Your task to perform on an android device: empty trash in the gmail app Image 0: 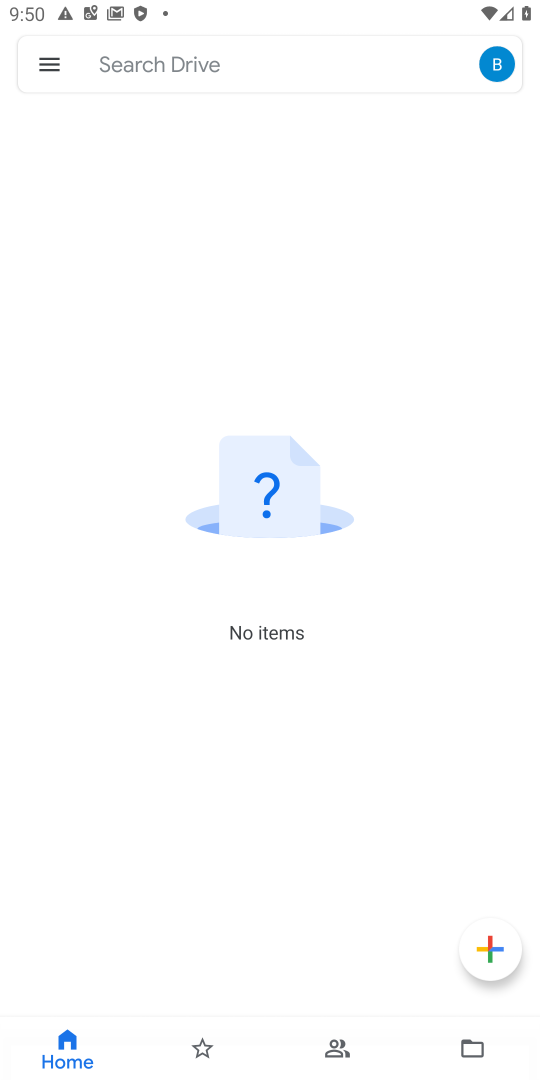
Step 0: press home button
Your task to perform on an android device: empty trash in the gmail app Image 1: 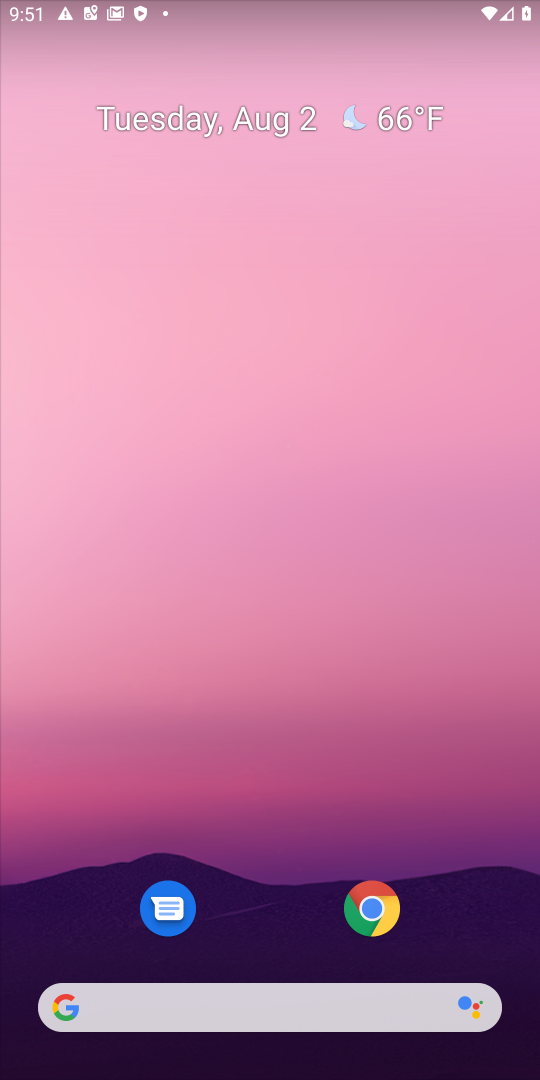
Step 1: drag from (107, 723) to (271, 338)
Your task to perform on an android device: empty trash in the gmail app Image 2: 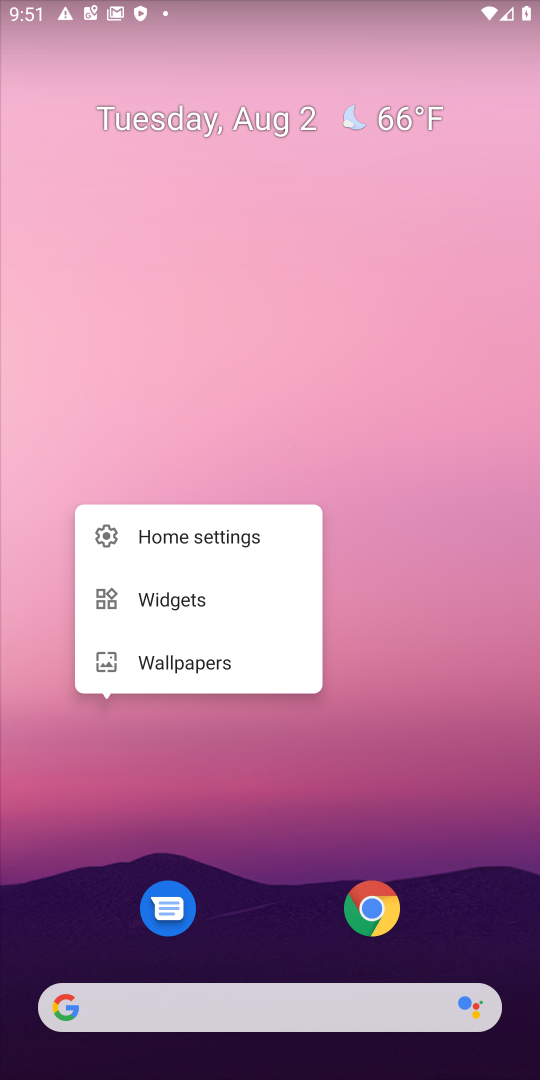
Step 2: click (247, 760)
Your task to perform on an android device: empty trash in the gmail app Image 3: 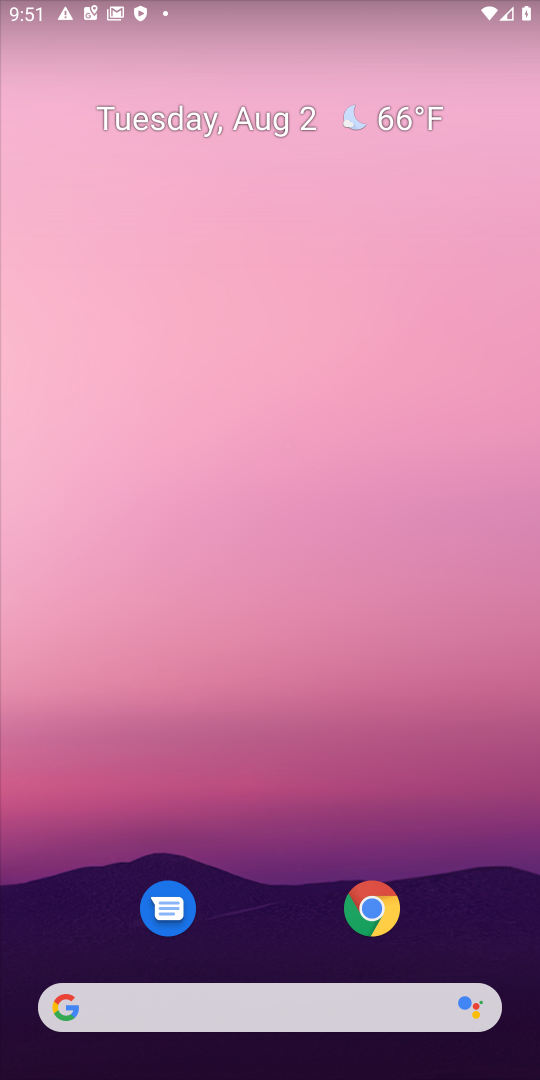
Step 3: drag from (39, 878) to (364, 131)
Your task to perform on an android device: empty trash in the gmail app Image 4: 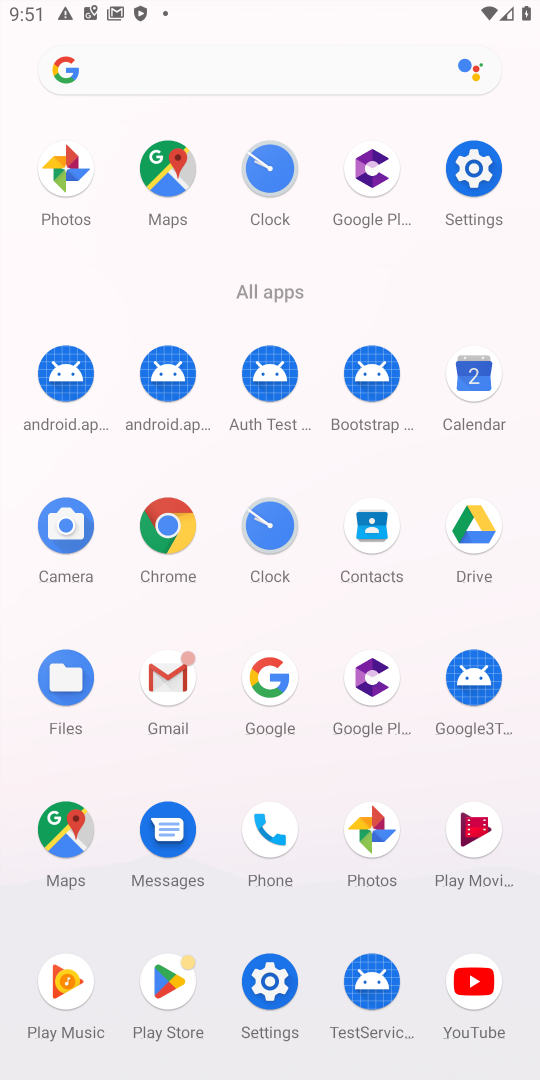
Step 4: click (176, 665)
Your task to perform on an android device: empty trash in the gmail app Image 5: 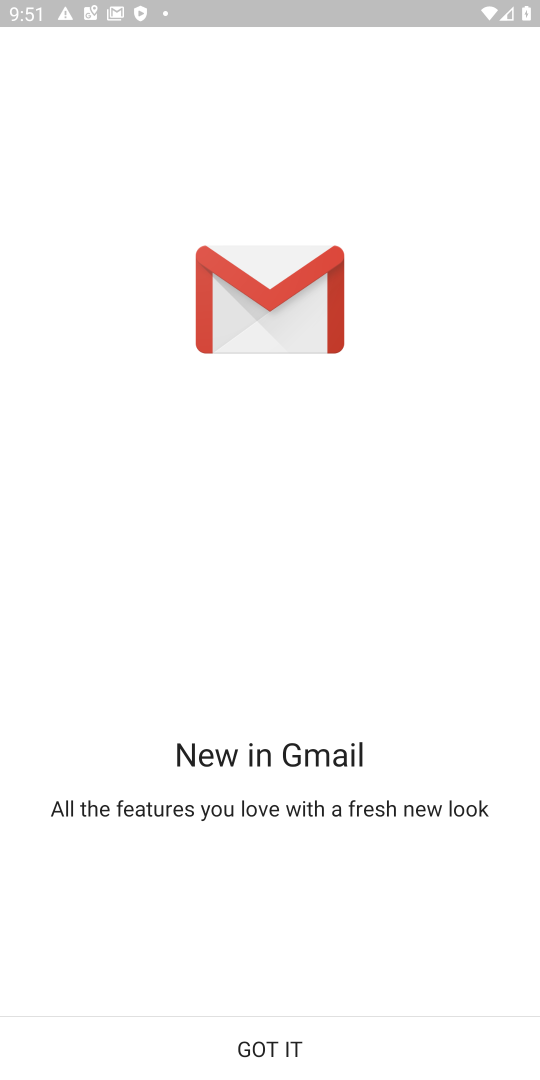
Step 5: click (264, 1043)
Your task to perform on an android device: empty trash in the gmail app Image 6: 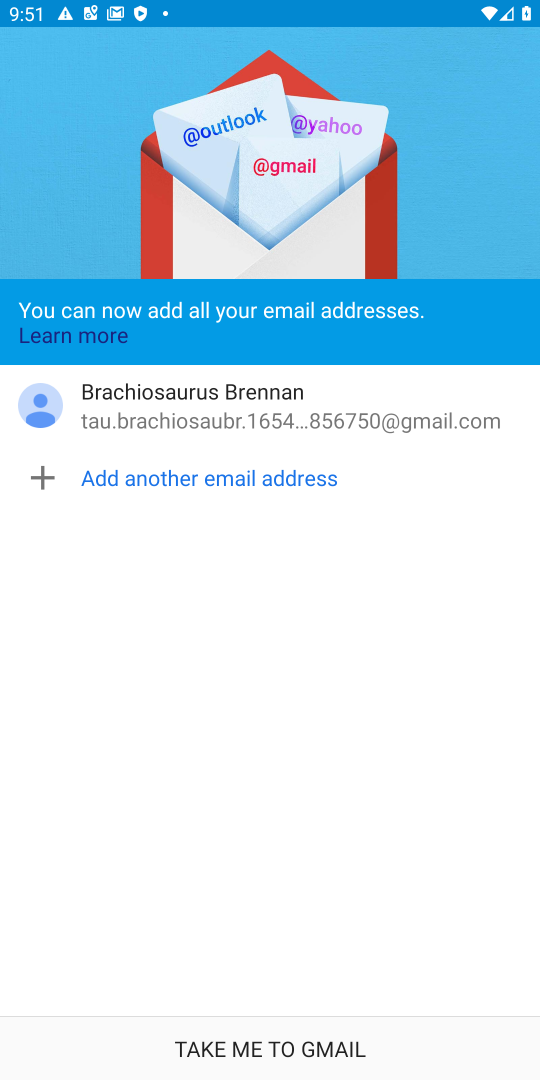
Step 6: click (264, 1043)
Your task to perform on an android device: empty trash in the gmail app Image 7: 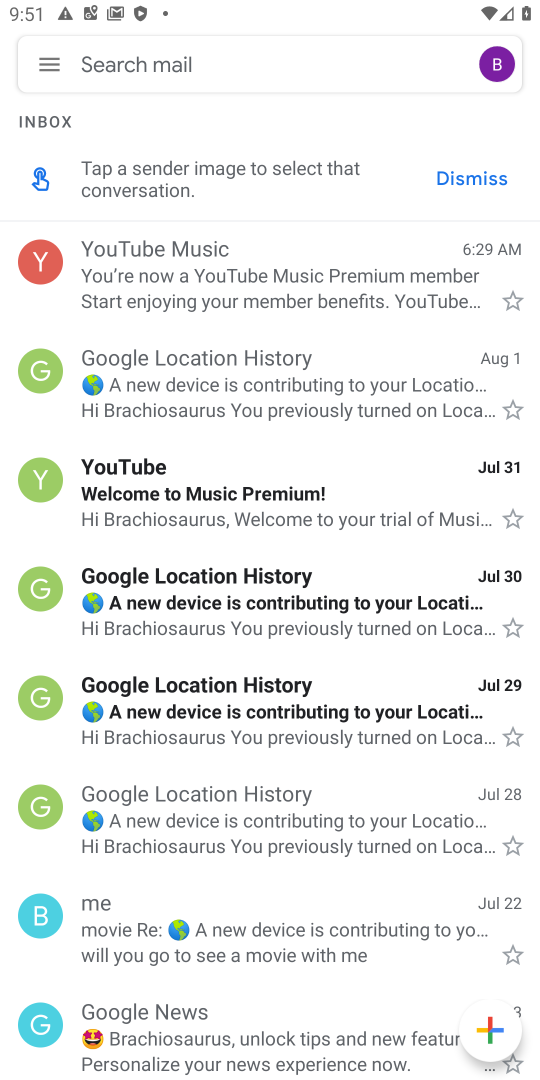
Step 7: click (50, 58)
Your task to perform on an android device: empty trash in the gmail app Image 8: 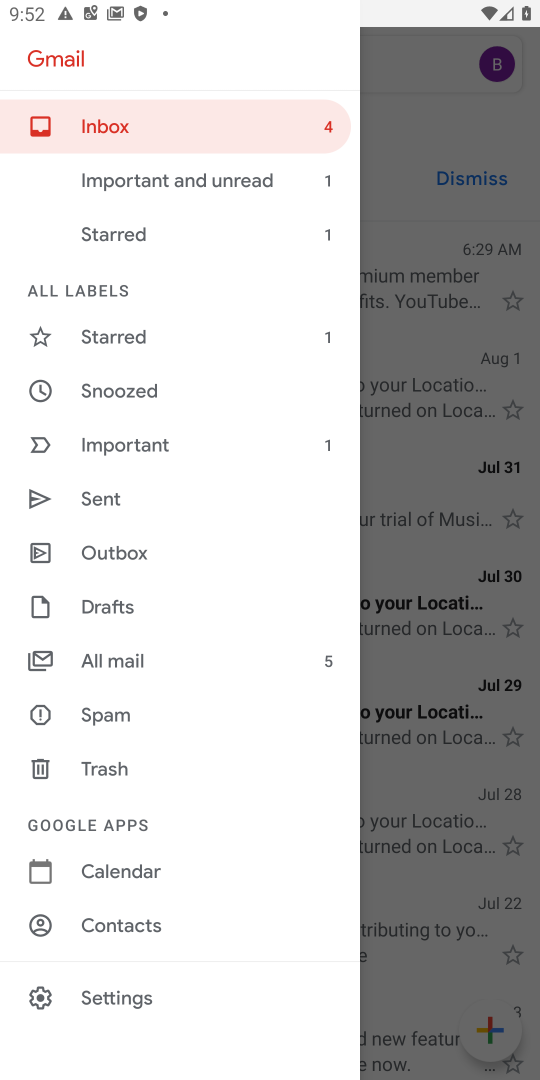
Step 8: click (83, 770)
Your task to perform on an android device: empty trash in the gmail app Image 9: 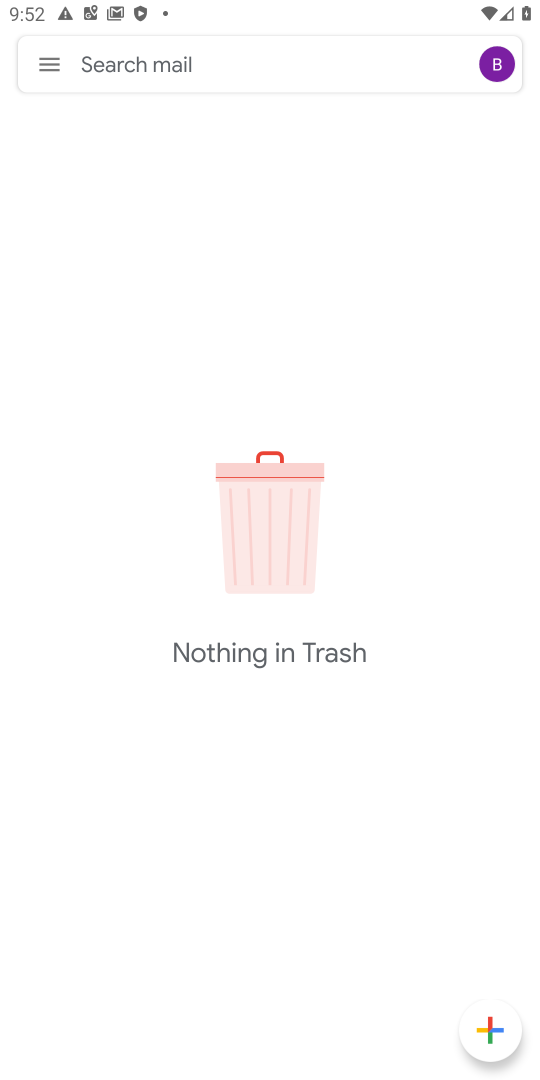
Step 9: task complete